Your task to perform on an android device: Show me popular videos on Youtube Image 0: 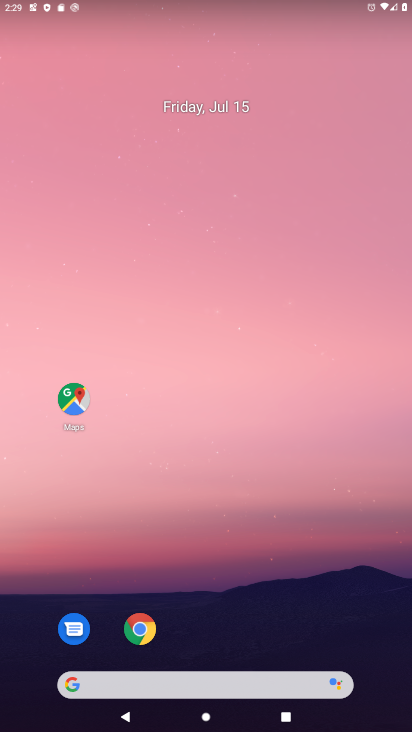
Step 0: drag from (291, 607) to (335, 5)
Your task to perform on an android device: Show me popular videos on Youtube Image 1: 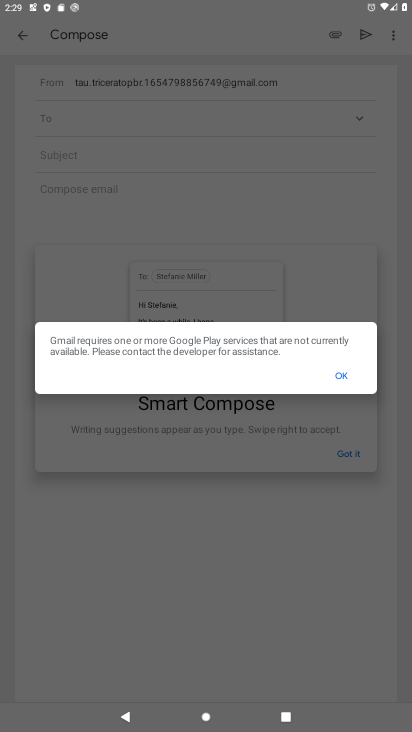
Step 1: press home button
Your task to perform on an android device: Show me popular videos on Youtube Image 2: 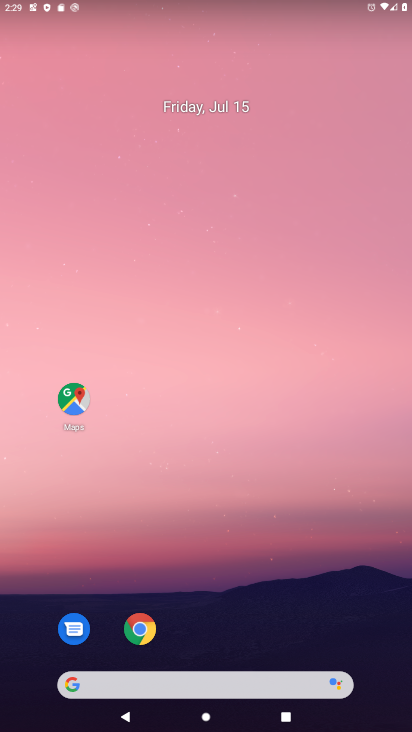
Step 2: drag from (305, 614) to (223, 121)
Your task to perform on an android device: Show me popular videos on Youtube Image 3: 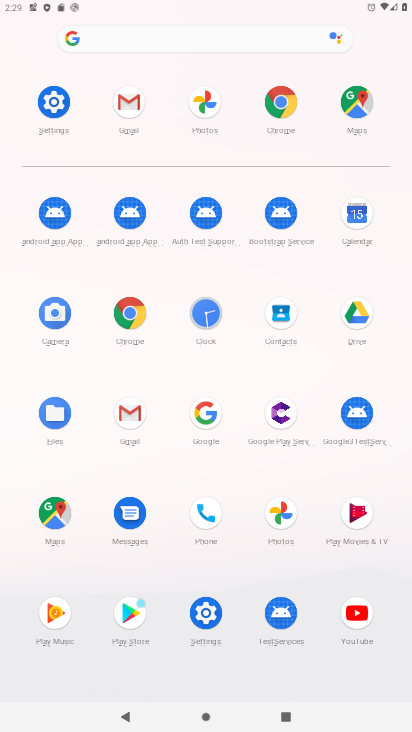
Step 3: click (360, 613)
Your task to perform on an android device: Show me popular videos on Youtube Image 4: 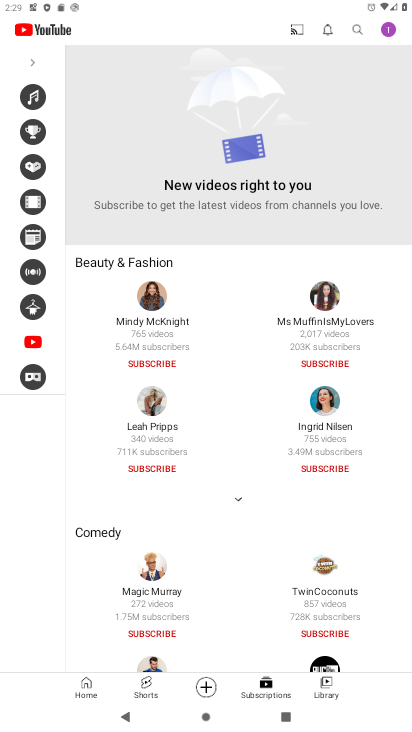
Step 4: click (86, 679)
Your task to perform on an android device: Show me popular videos on Youtube Image 5: 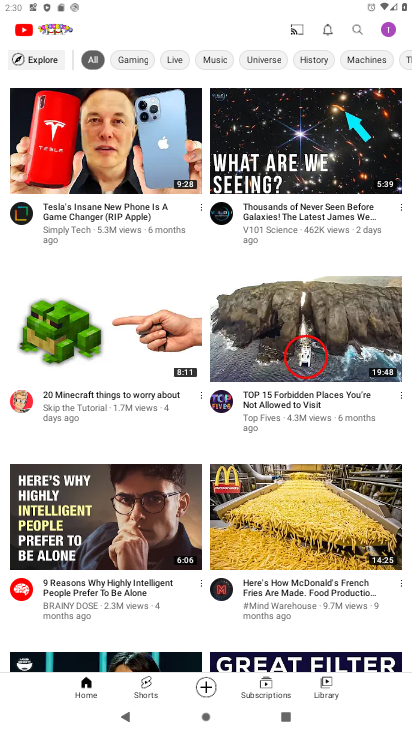
Step 5: task complete